Your task to perform on an android device: open the mobile data screen to see how much data has been used Image 0: 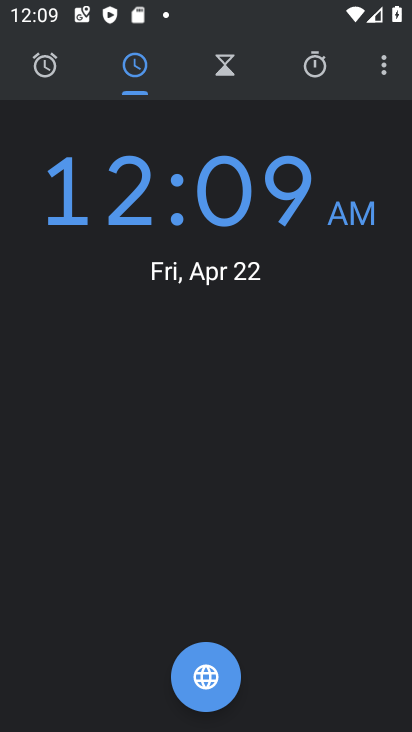
Step 0: press home button
Your task to perform on an android device: open the mobile data screen to see how much data has been used Image 1: 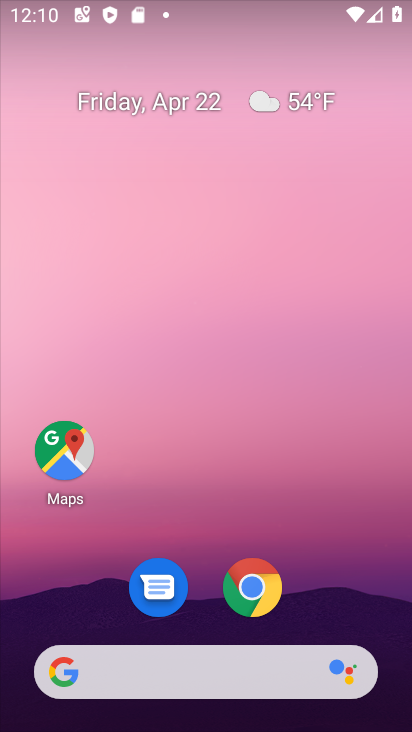
Step 1: drag from (366, 620) to (378, 15)
Your task to perform on an android device: open the mobile data screen to see how much data has been used Image 2: 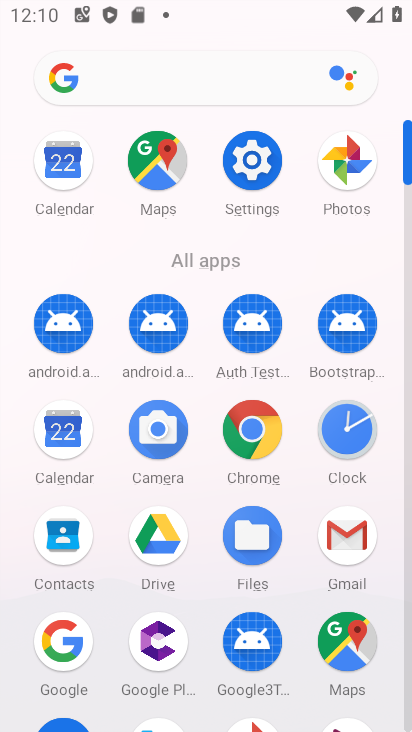
Step 2: click (245, 162)
Your task to perform on an android device: open the mobile data screen to see how much data has been used Image 3: 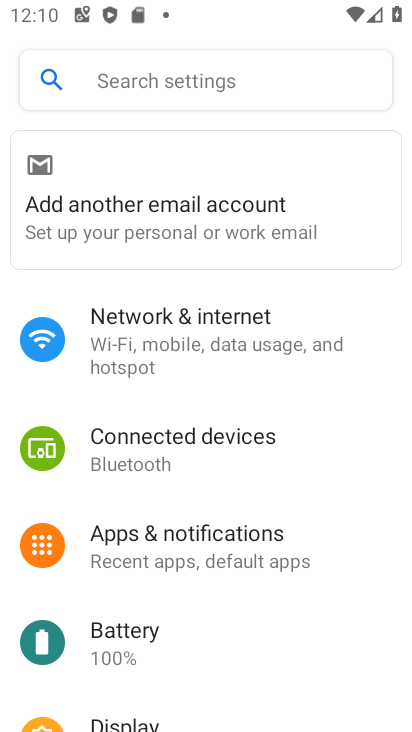
Step 3: click (159, 330)
Your task to perform on an android device: open the mobile data screen to see how much data has been used Image 4: 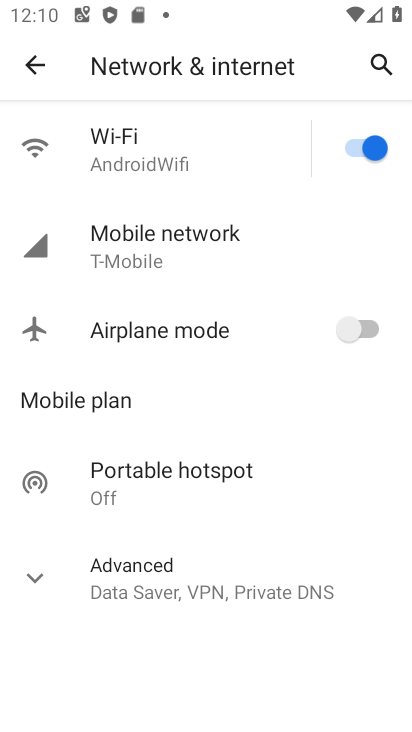
Step 4: click (145, 260)
Your task to perform on an android device: open the mobile data screen to see how much data has been used Image 5: 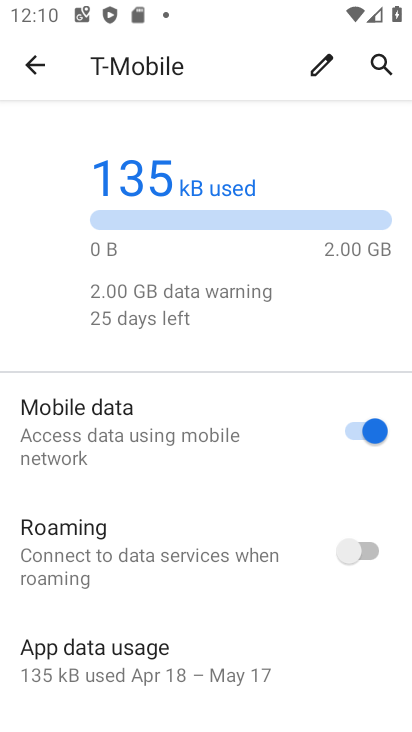
Step 5: click (83, 654)
Your task to perform on an android device: open the mobile data screen to see how much data has been used Image 6: 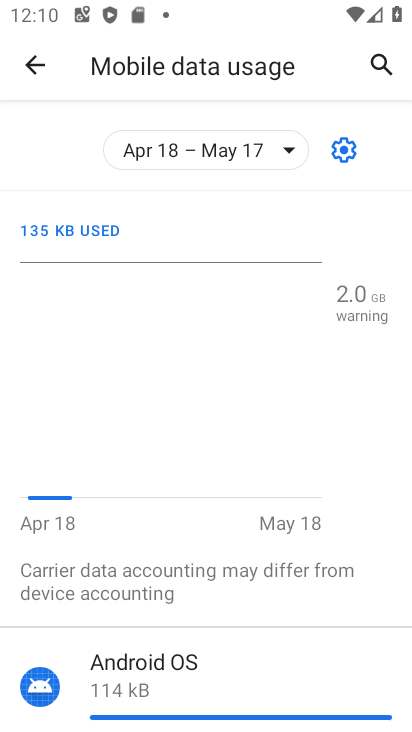
Step 6: task complete